Your task to perform on an android device: Go to wifi settings Image 0: 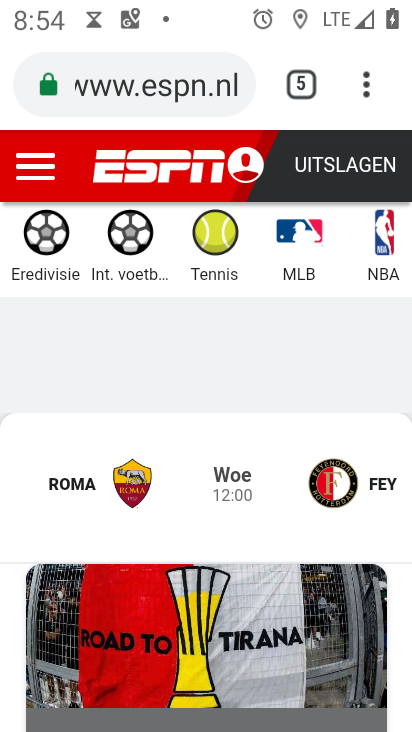
Step 0: press home button
Your task to perform on an android device: Go to wifi settings Image 1: 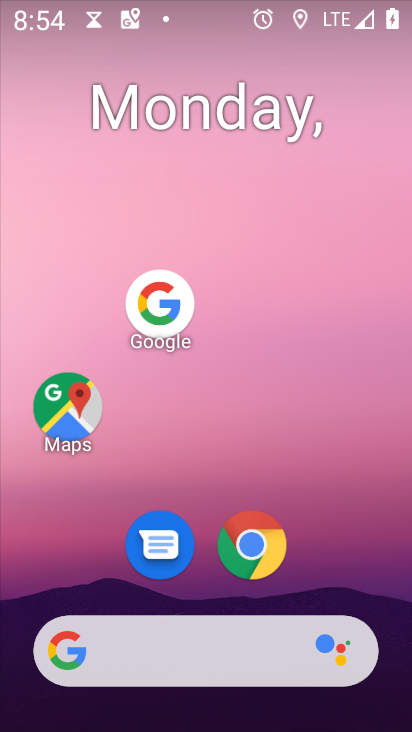
Step 1: drag from (182, 557) to (303, 99)
Your task to perform on an android device: Go to wifi settings Image 2: 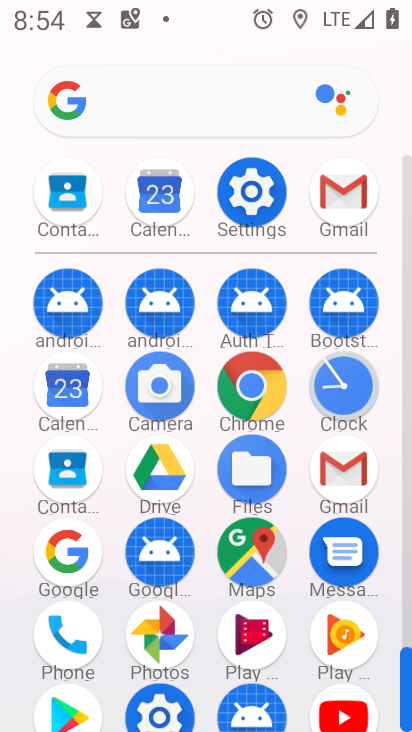
Step 2: click (259, 199)
Your task to perform on an android device: Go to wifi settings Image 3: 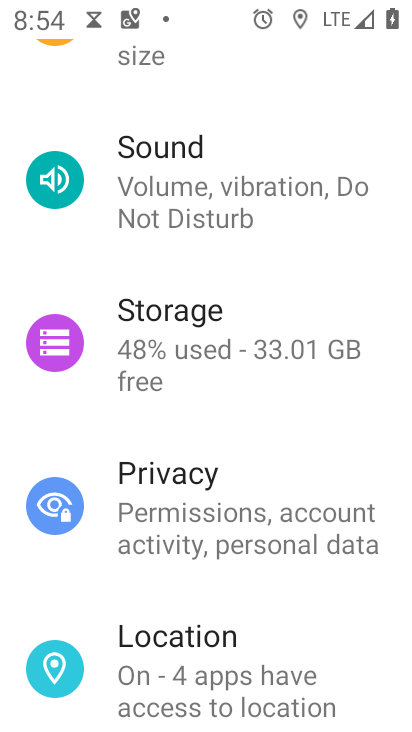
Step 3: drag from (333, 121) to (240, 616)
Your task to perform on an android device: Go to wifi settings Image 4: 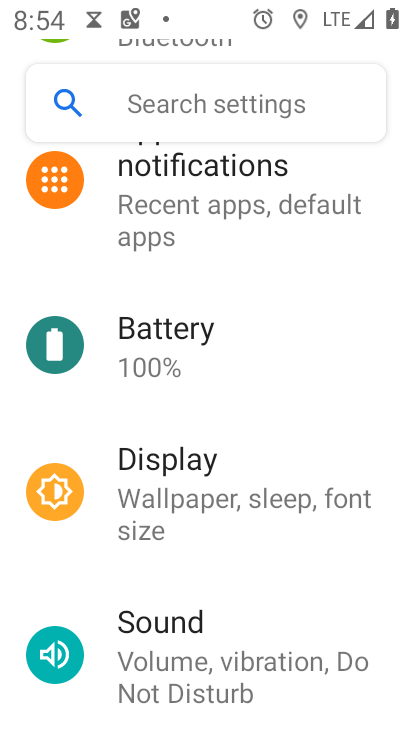
Step 4: drag from (293, 262) to (261, 646)
Your task to perform on an android device: Go to wifi settings Image 5: 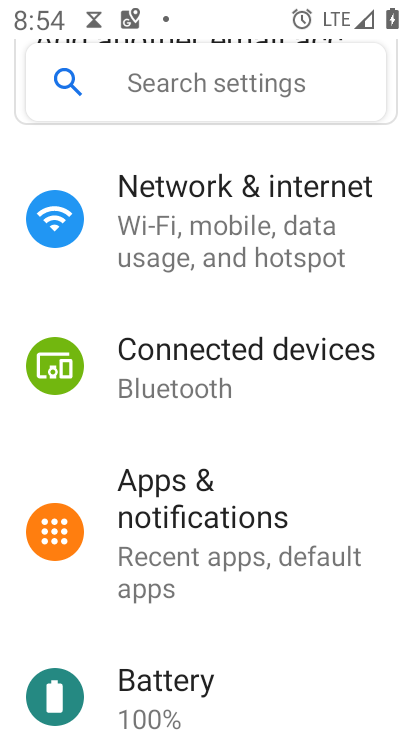
Step 5: drag from (319, 308) to (309, 569)
Your task to perform on an android device: Go to wifi settings Image 6: 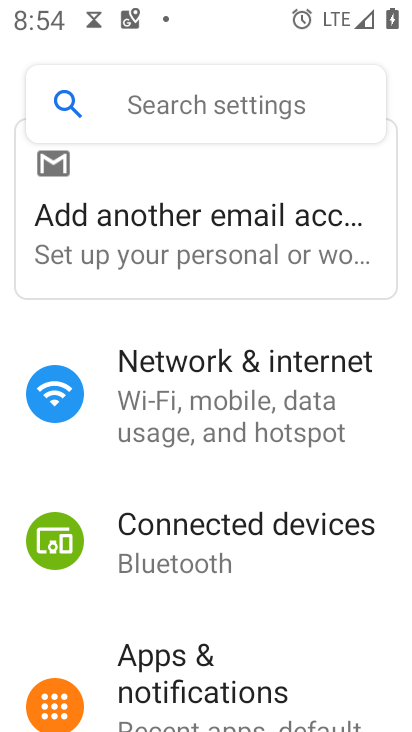
Step 6: click (266, 372)
Your task to perform on an android device: Go to wifi settings Image 7: 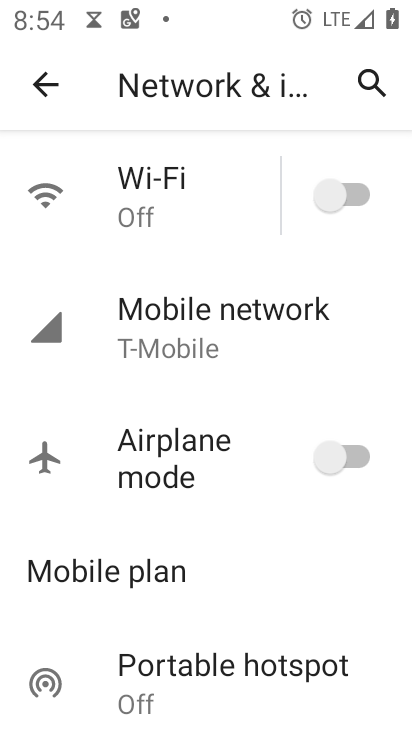
Step 7: click (145, 211)
Your task to perform on an android device: Go to wifi settings Image 8: 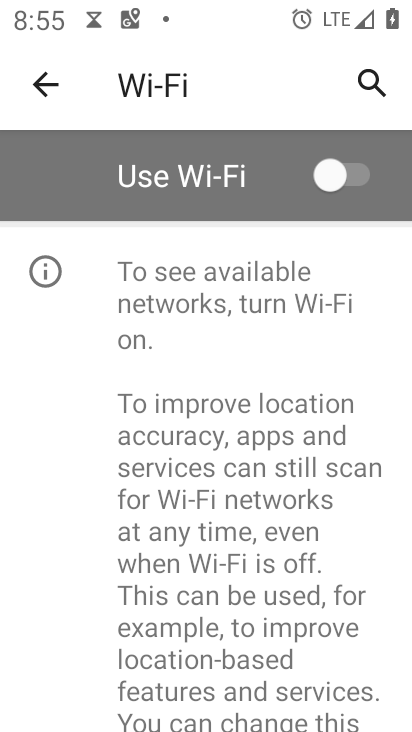
Step 8: task complete